Your task to perform on an android device: Do I have any events this weekend? Image 0: 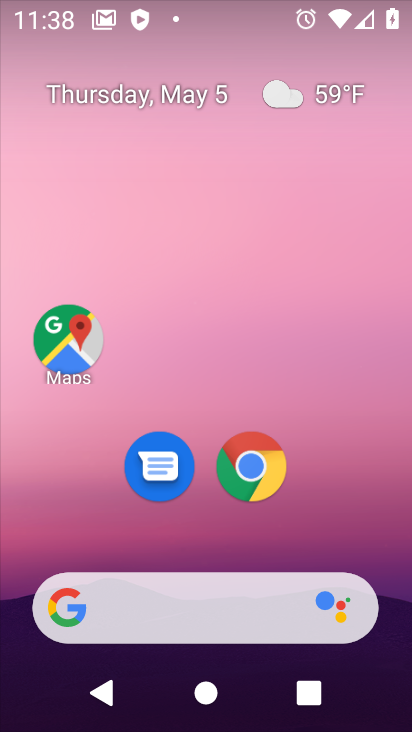
Step 0: drag from (192, 518) to (256, 134)
Your task to perform on an android device: Do I have any events this weekend? Image 1: 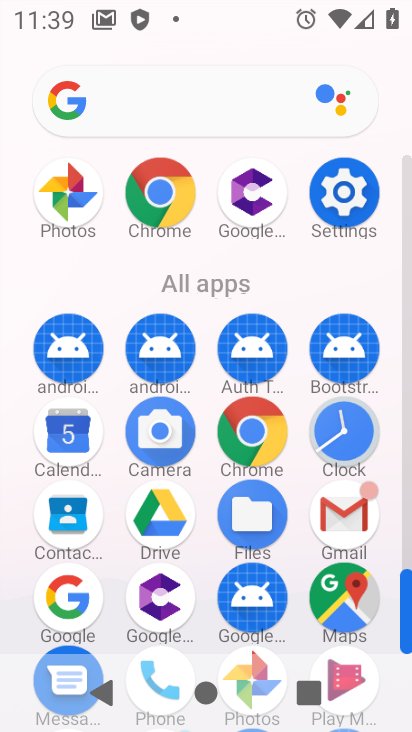
Step 1: drag from (296, 488) to (298, 296)
Your task to perform on an android device: Do I have any events this weekend? Image 2: 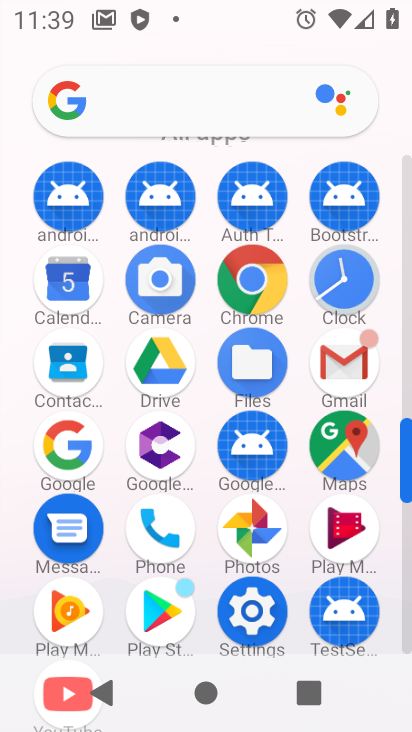
Step 2: click (64, 291)
Your task to perform on an android device: Do I have any events this weekend? Image 3: 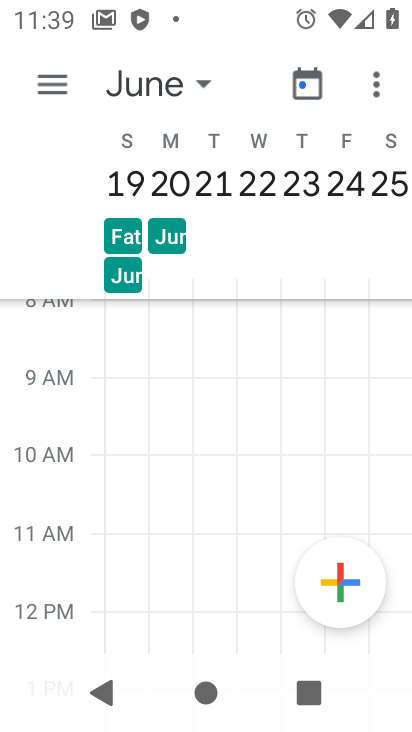
Step 3: click (170, 100)
Your task to perform on an android device: Do I have any events this weekend? Image 4: 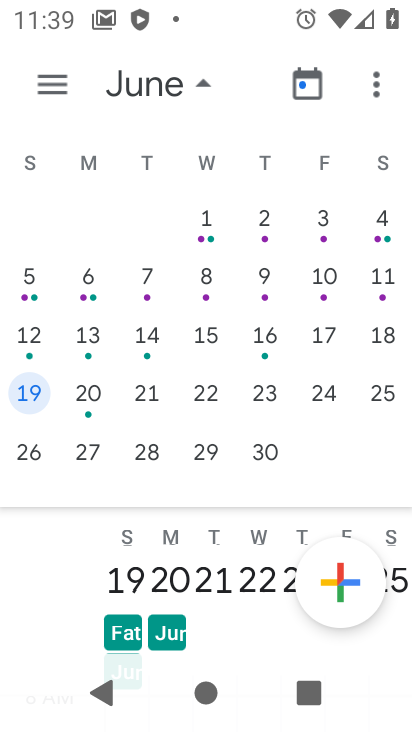
Step 4: drag from (69, 240) to (362, 240)
Your task to perform on an android device: Do I have any events this weekend? Image 5: 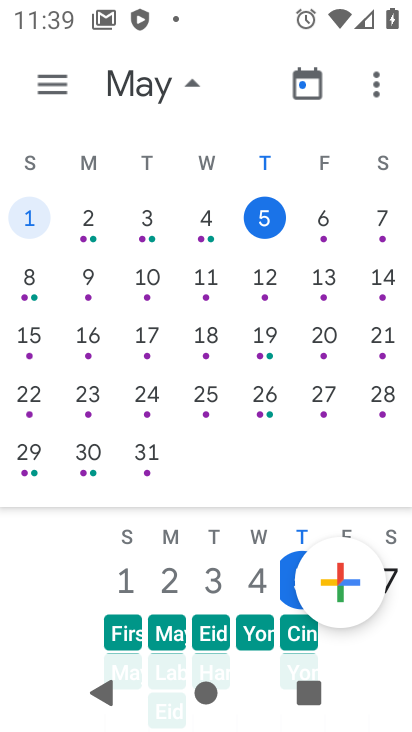
Step 5: click (206, 275)
Your task to perform on an android device: Do I have any events this weekend? Image 6: 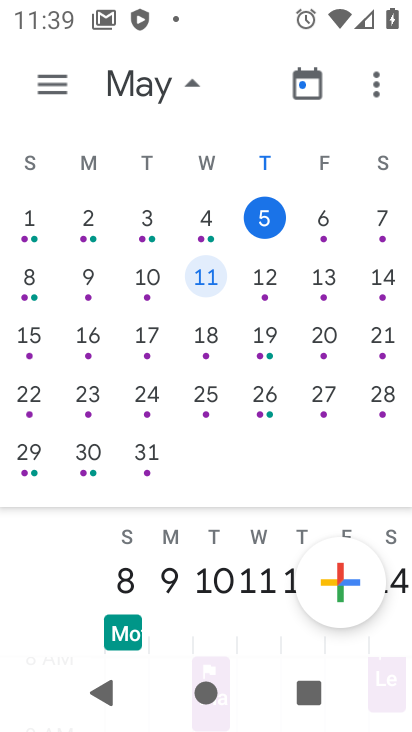
Step 6: click (367, 283)
Your task to perform on an android device: Do I have any events this weekend? Image 7: 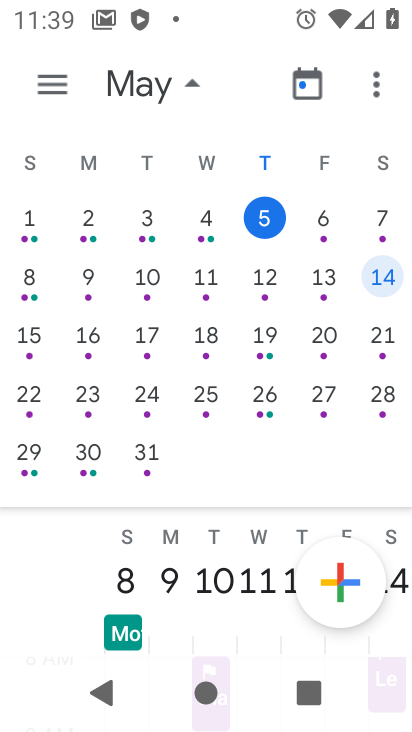
Step 7: click (37, 349)
Your task to perform on an android device: Do I have any events this weekend? Image 8: 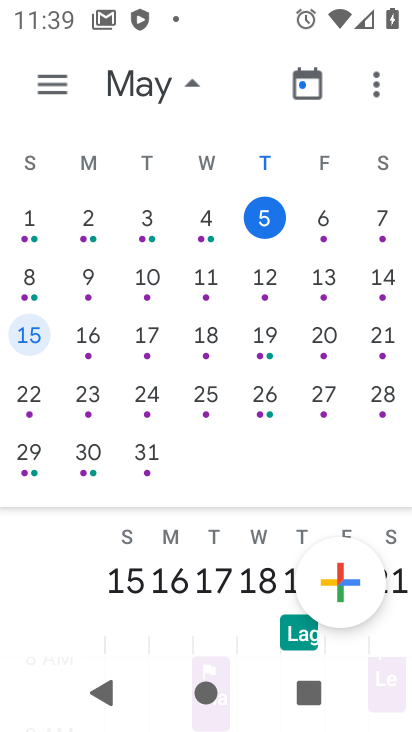
Step 8: task complete